Your task to perform on an android device: empty trash in the gmail app Image 0: 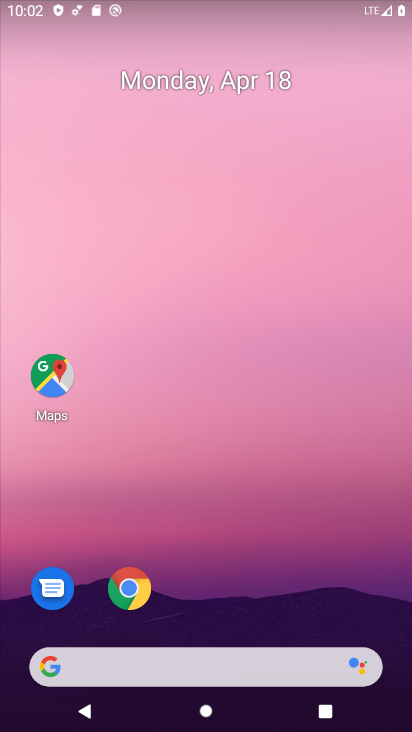
Step 0: drag from (230, 621) to (289, 84)
Your task to perform on an android device: empty trash in the gmail app Image 1: 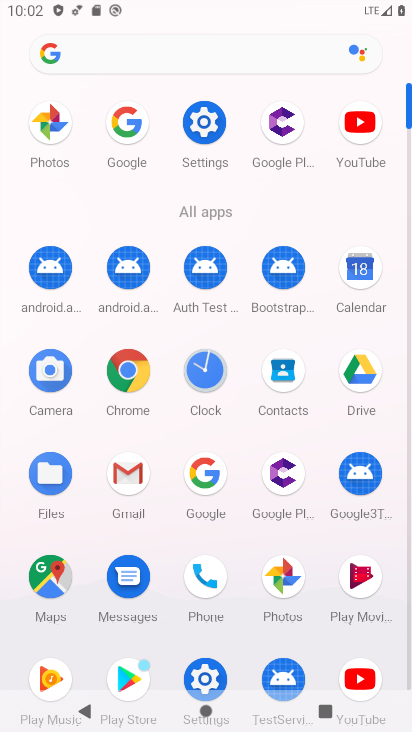
Step 1: click (128, 478)
Your task to perform on an android device: empty trash in the gmail app Image 2: 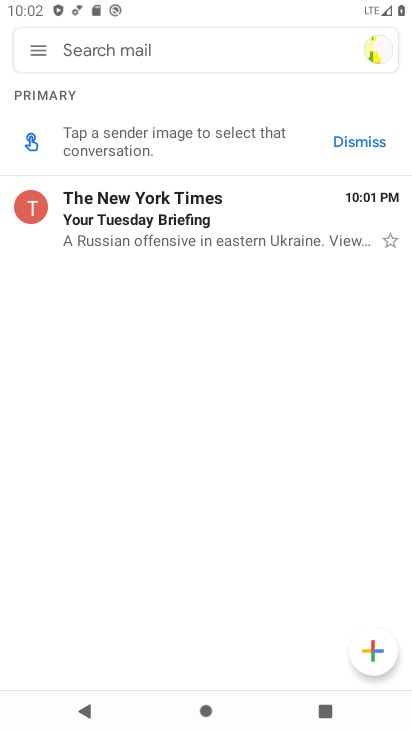
Step 2: click (44, 41)
Your task to perform on an android device: empty trash in the gmail app Image 3: 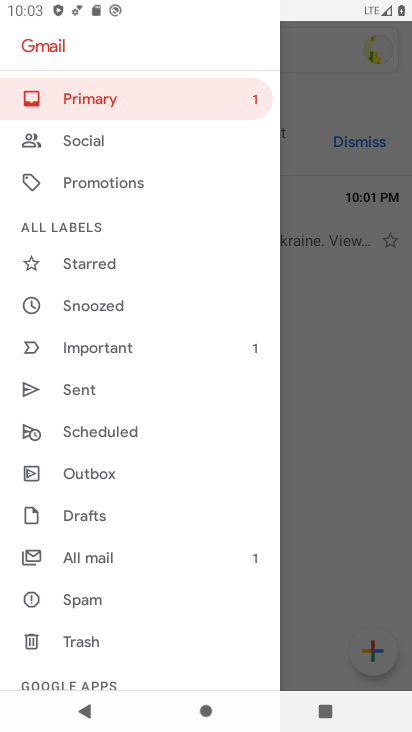
Step 3: click (87, 632)
Your task to perform on an android device: empty trash in the gmail app Image 4: 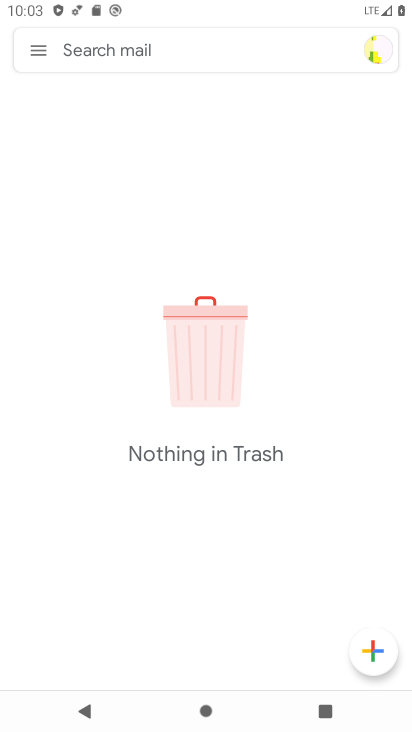
Step 4: task complete